Your task to perform on an android device: Go to Android settings Image 0: 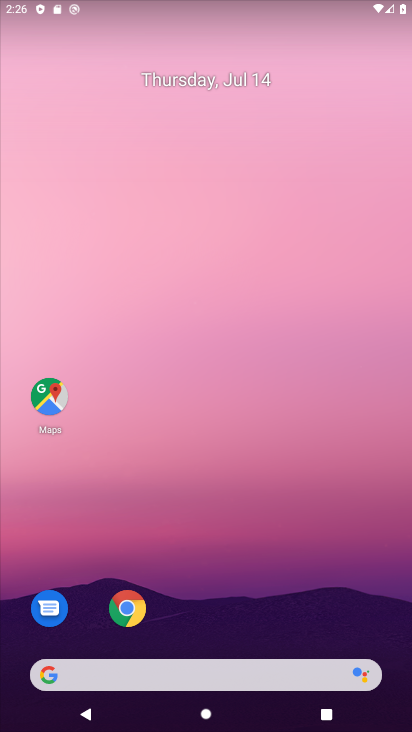
Step 0: drag from (224, 587) to (379, 13)
Your task to perform on an android device: Go to Android settings Image 1: 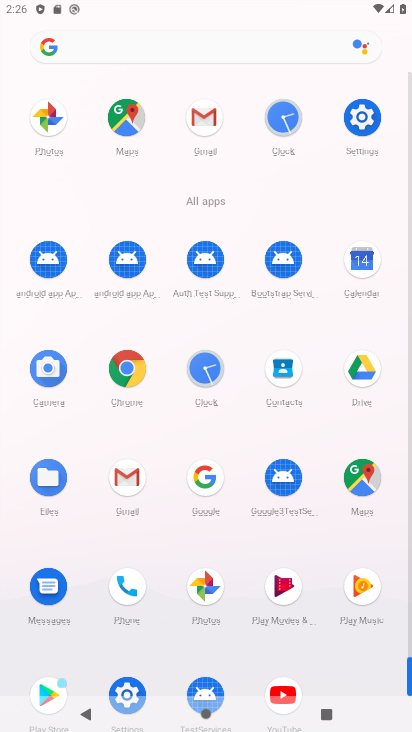
Step 1: drag from (157, 585) to (166, 229)
Your task to perform on an android device: Go to Android settings Image 2: 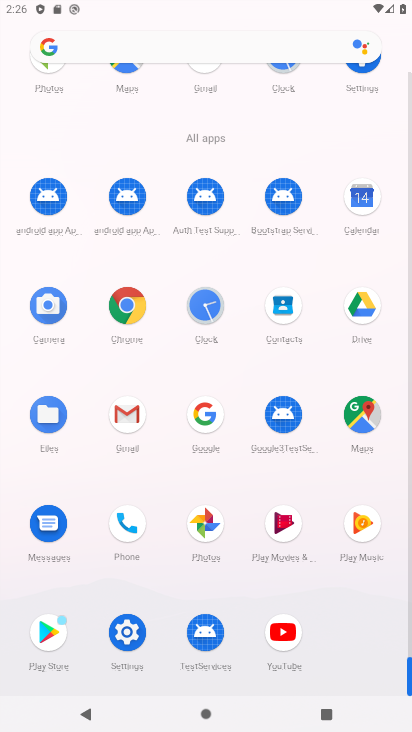
Step 2: click (114, 637)
Your task to perform on an android device: Go to Android settings Image 3: 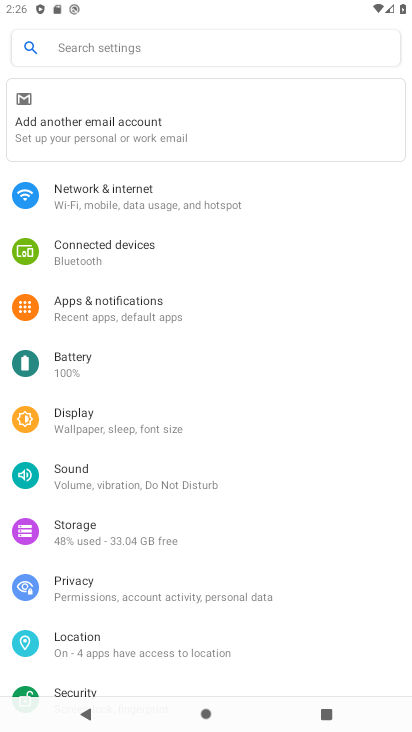
Step 3: drag from (173, 629) to (220, 234)
Your task to perform on an android device: Go to Android settings Image 4: 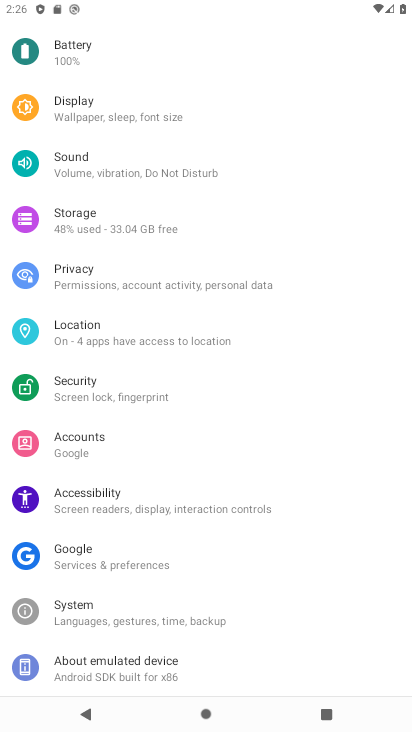
Step 4: click (101, 662)
Your task to perform on an android device: Go to Android settings Image 5: 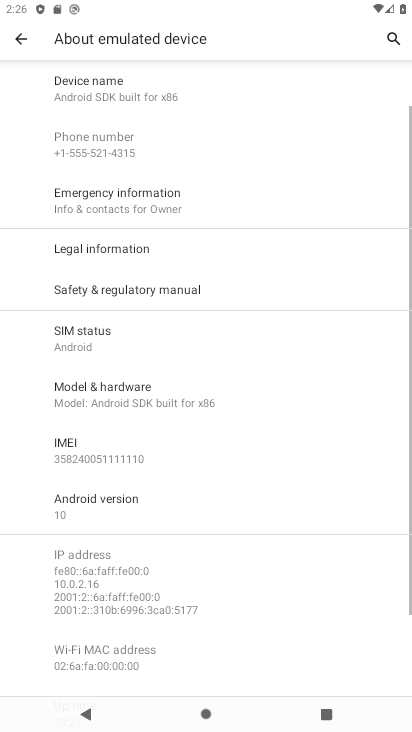
Step 5: click (121, 508)
Your task to perform on an android device: Go to Android settings Image 6: 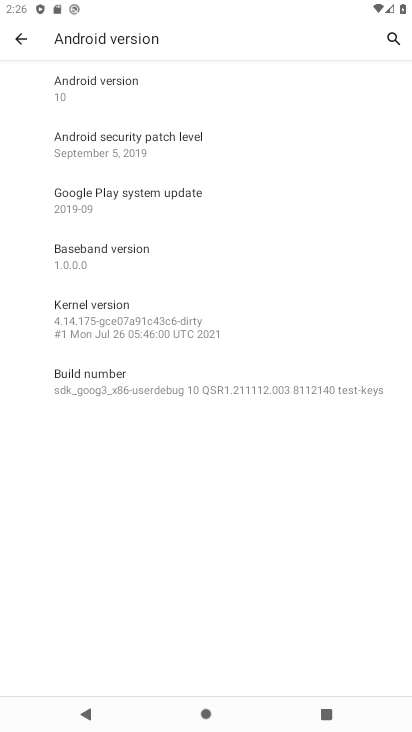
Step 6: task complete